Your task to perform on an android device: toggle notifications settings in the gmail app Image 0: 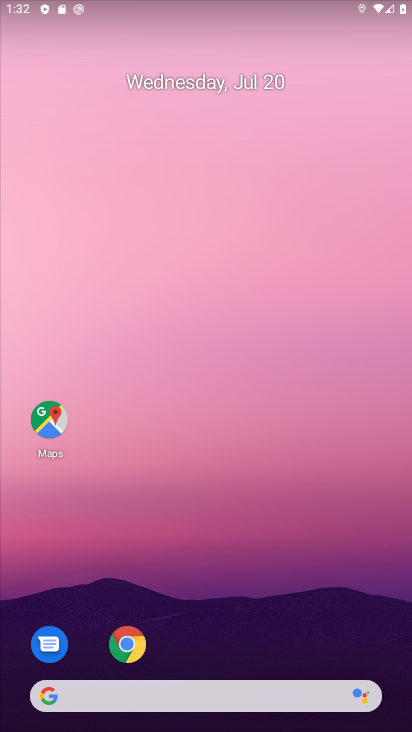
Step 0: drag from (224, 604) to (188, 93)
Your task to perform on an android device: toggle notifications settings in the gmail app Image 1: 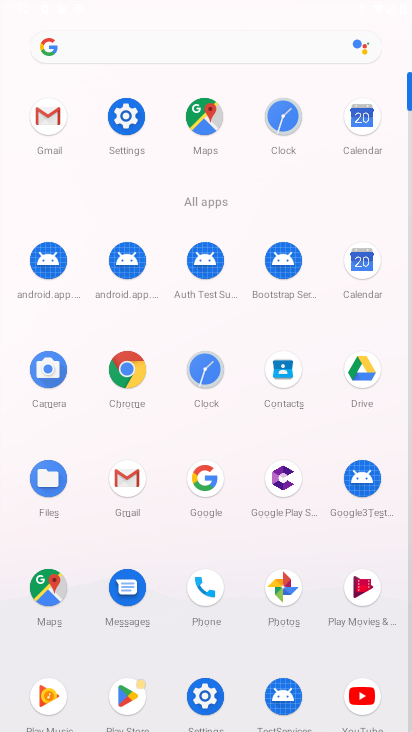
Step 1: click (51, 125)
Your task to perform on an android device: toggle notifications settings in the gmail app Image 2: 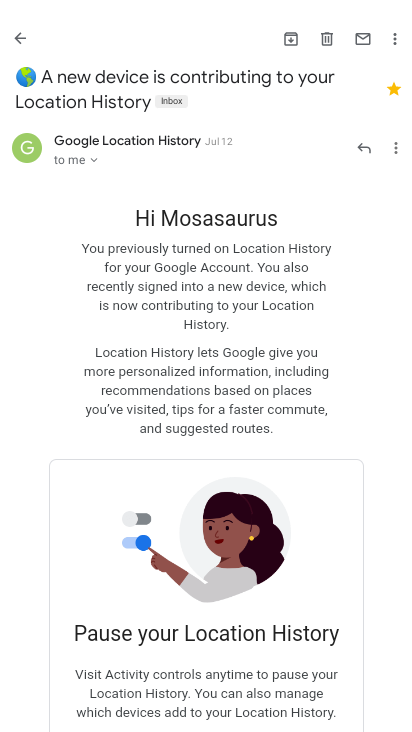
Step 2: click (13, 28)
Your task to perform on an android device: toggle notifications settings in the gmail app Image 3: 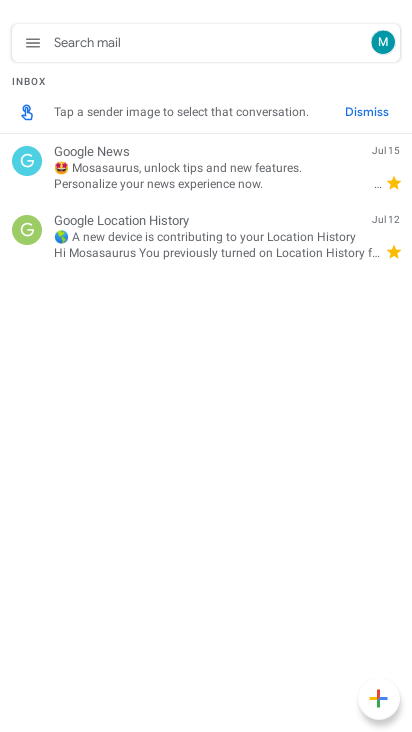
Step 3: click (25, 40)
Your task to perform on an android device: toggle notifications settings in the gmail app Image 4: 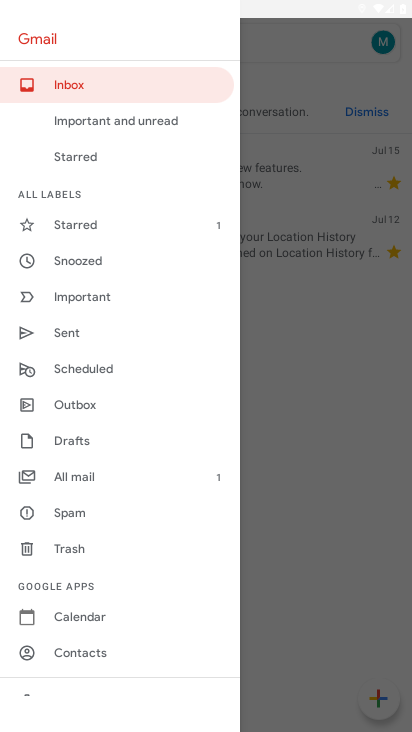
Step 4: drag from (118, 654) to (116, 389)
Your task to perform on an android device: toggle notifications settings in the gmail app Image 5: 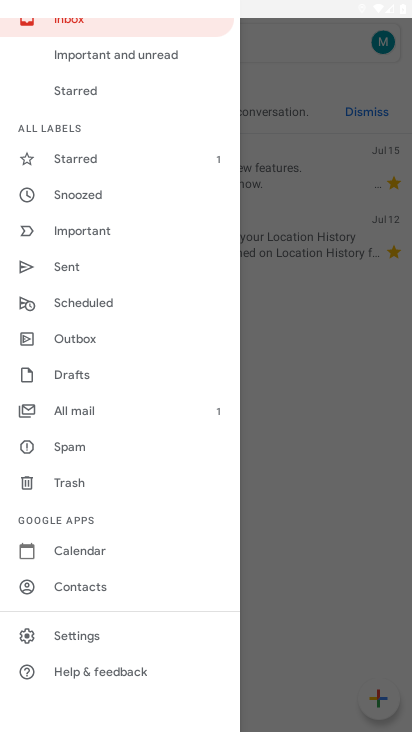
Step 5: click (89, 633)
Your task to perform on an android device: toggle notifications settings in the gmail app Image 6: 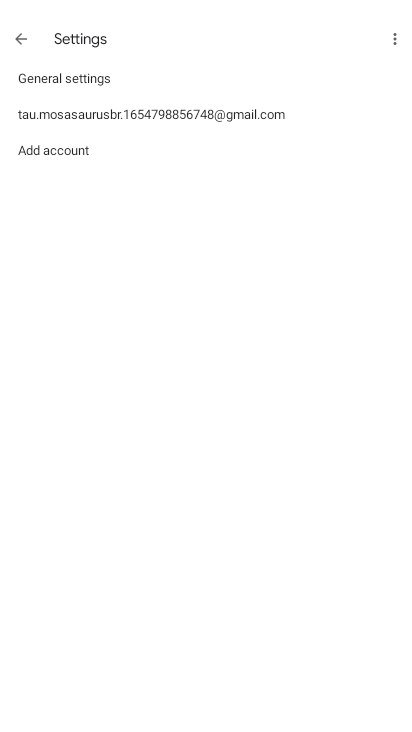
Step 6: click (214, 119)
Your task to perform on an android device: toggle notifications settings in the gmail app Image 7: 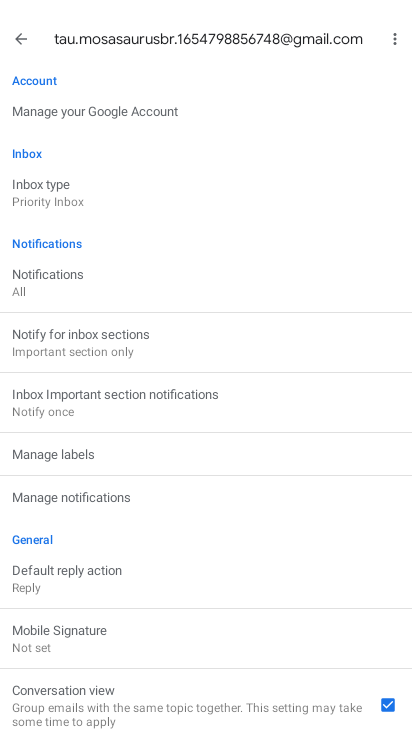
Step 7: click (96, 499)
Your task to perform on an android device: toggle notifications settings in the gmail app Image 8: 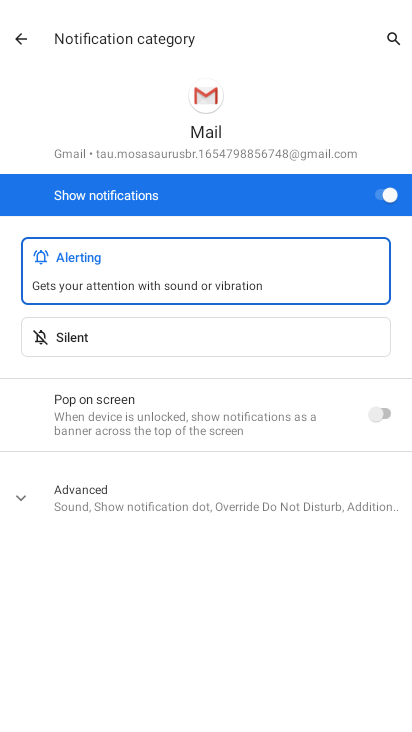
Step 8: click (397, 208)
Your task to perform on an android device: toggle notifications settings in the gmail app Image 9: 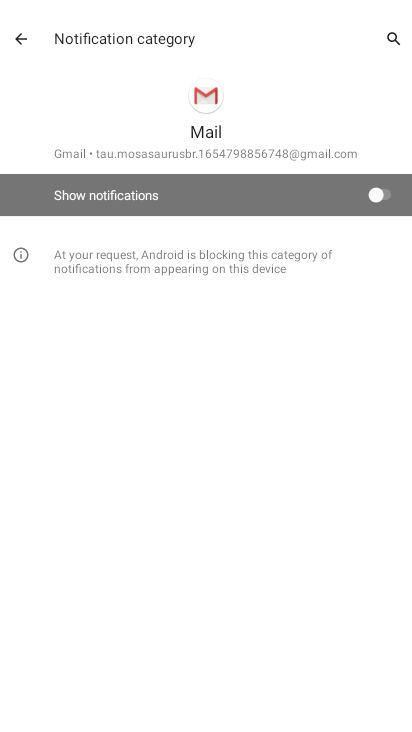
Step 9: task complete